Your task to perform on an android device: Go to location settings Image 0: 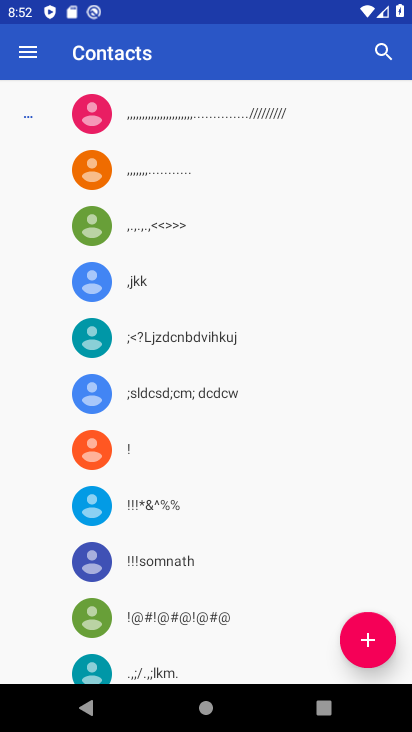
Step 0: press home button
Your task to perform on an android device: Go to location settings Image 1: 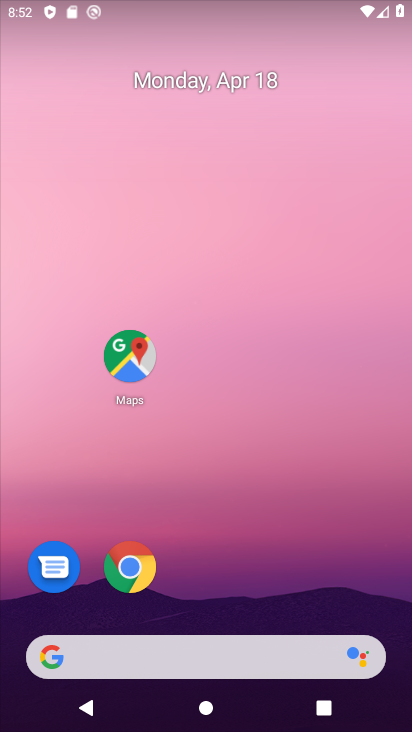
Step 1: drag from (260, 686) to (382, 175)
Your task to perform on an android device: Go to location settings Image 2: 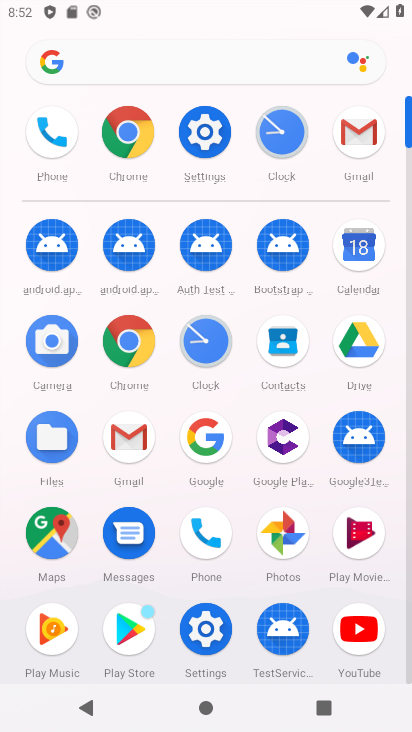
Step 2: click (203, 606)
Your task to perform on an android device: Go to location settings Image 3: 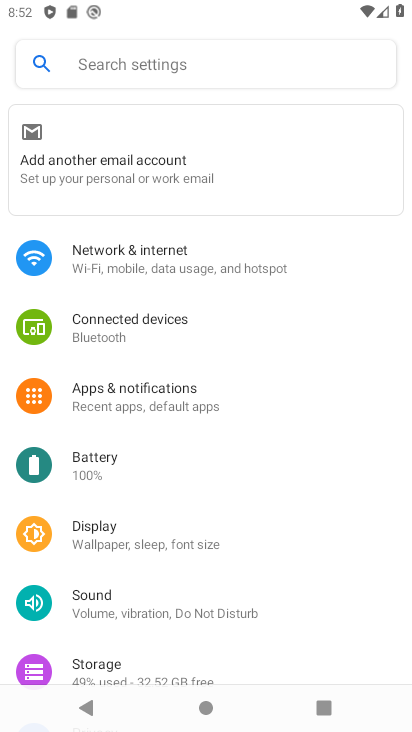
Step 3: click (171, 67)
Your task to perform on an android device: Go to location settings Image 4: 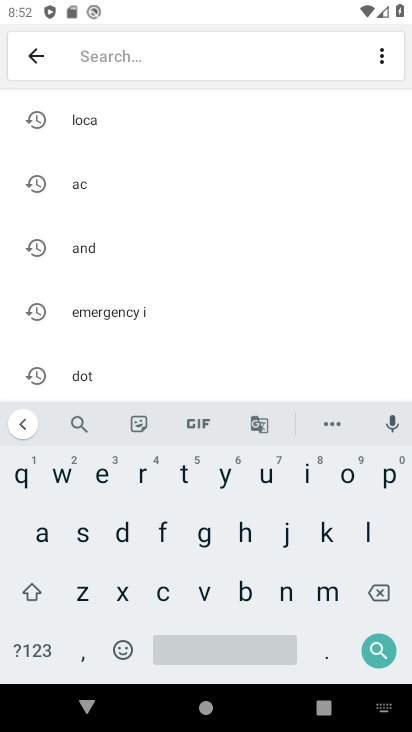
Step 4: click (107, 127)
Your task to perform on an android device: Go to location settings Image 5: 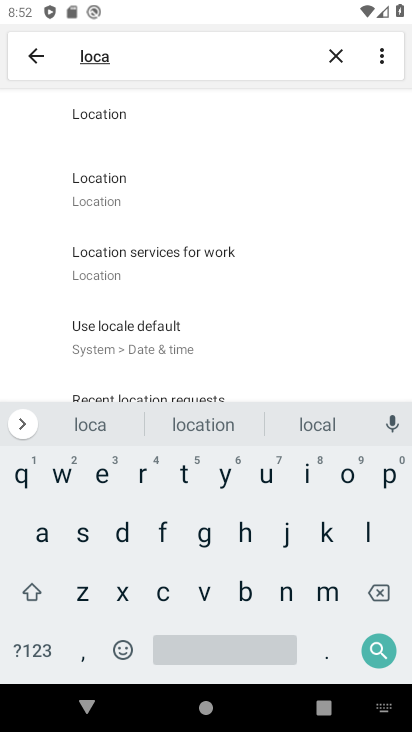
Step 5: click (96, 202)
Your task to perform on an android device: Go to location settings Image 6: 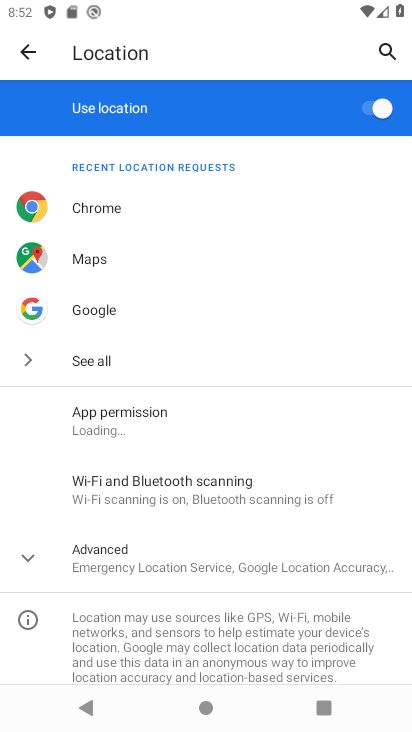
Step 6: click (96, 373)
Your task to perform on an android device: Go to location settings Image 7: 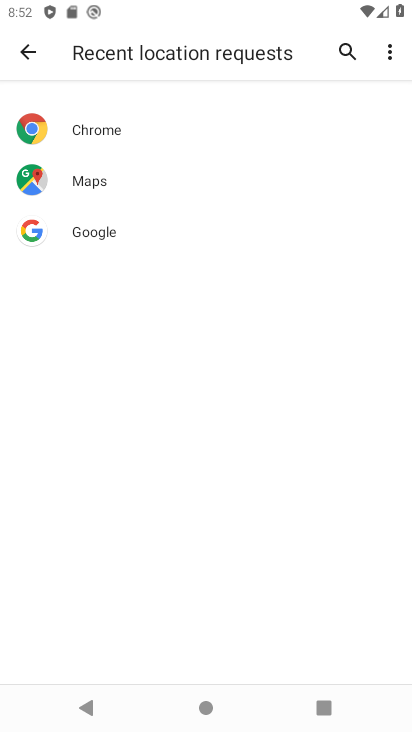
Step 7: click (28, 68)
Your task to perform on an android device: Go to location settings Image 8: 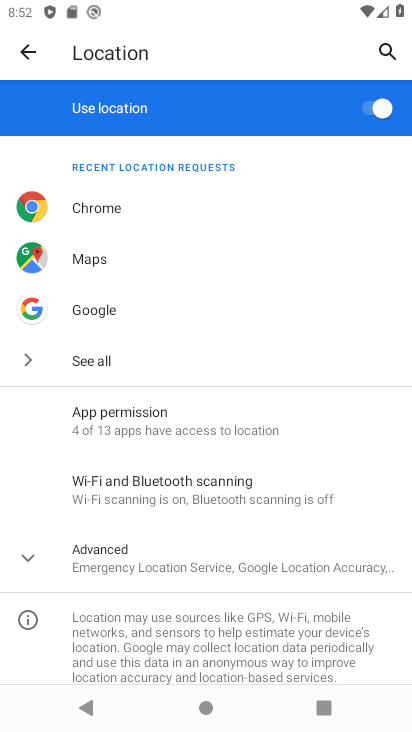
Step 8: click (53, 541)
Your task to perform on an android device: Go to location settings Image 9: 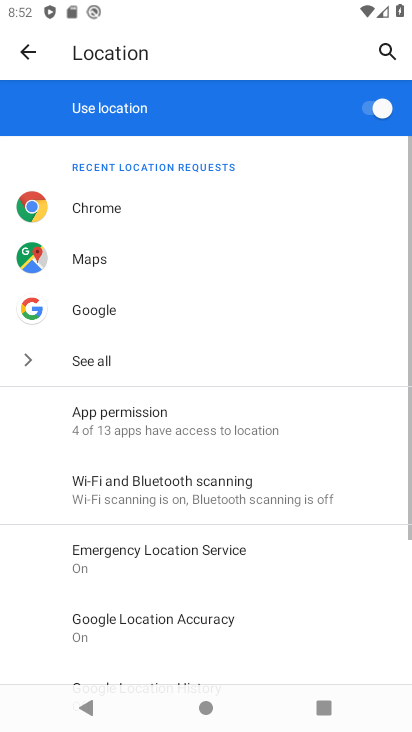
Step 9: task complete